Your task to perform on an android device: turn off location Image 0: 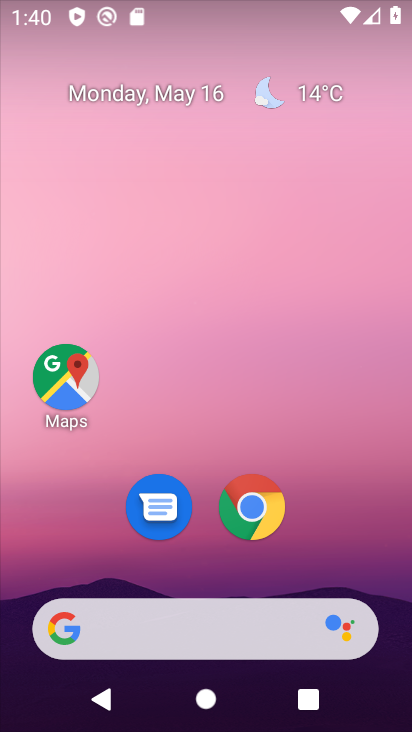
Step 0: drag from (196, 556) to (217, 169)
Your task to perform on an android device: turn off location Image 1: 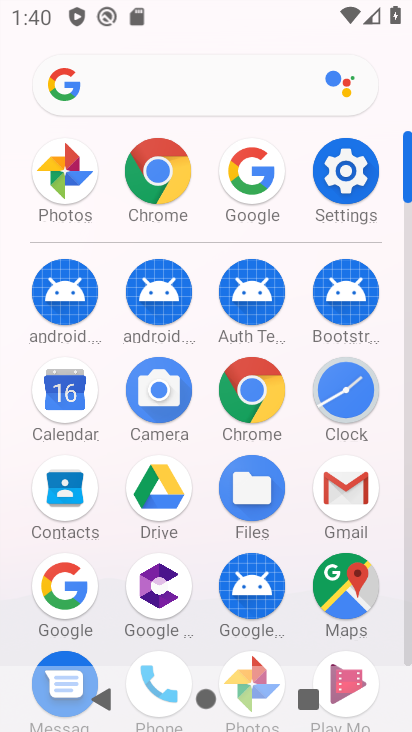
Step 1: click (348, 194)
Your task to perform on an android device: turn off location Image 2: 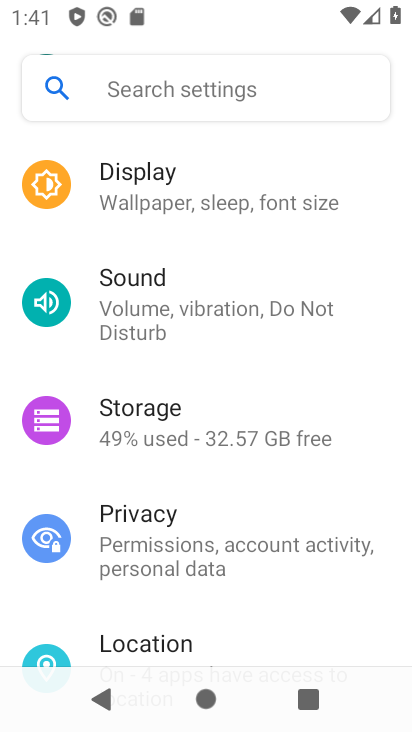
Step 2: drag from (175, 570) to (209, 380)
Your task to perform on an android device: turn off location Image 3: 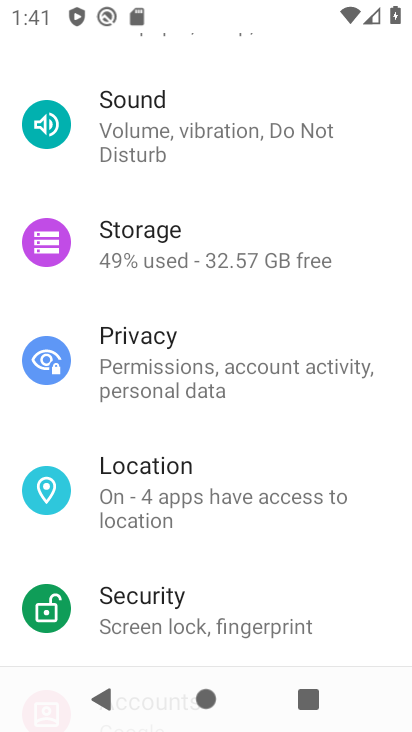
Step 3: click (210, 482)
Your task to perform on an android device: turn off location Image 4: 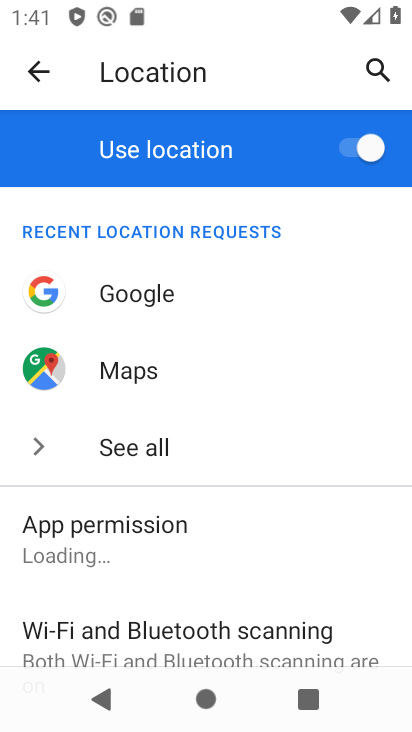
Step 4: click (362, 152)
Your task to perform on an android device: turn off location Image 5: 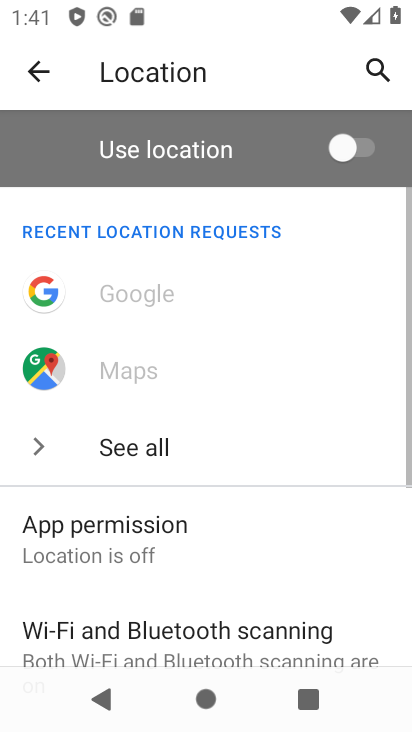
Step 5: task complete